Your task to perform on an android device: open app "VLC for Android" (install if not already installed) Image 0: 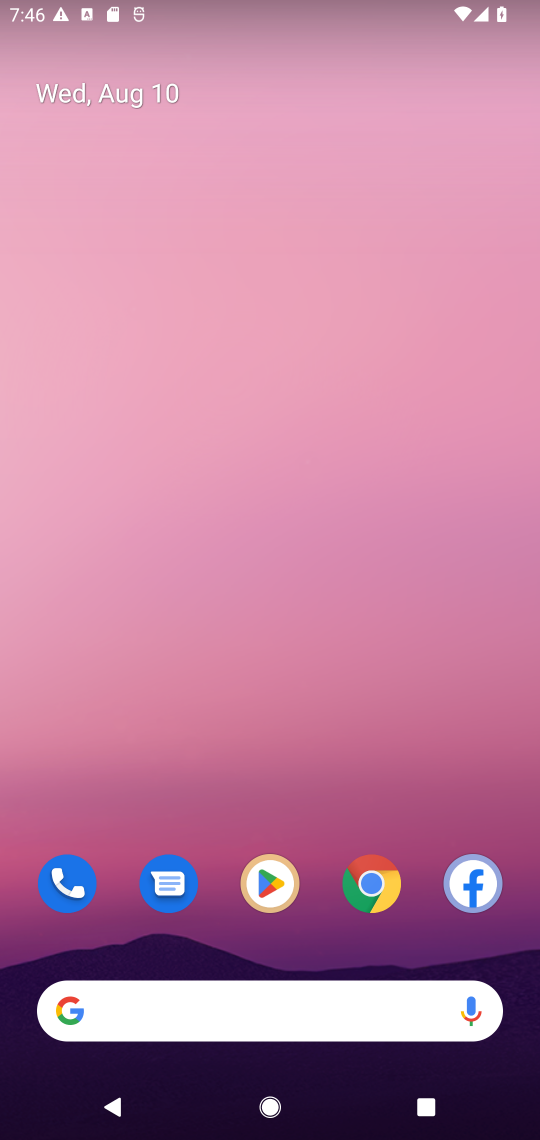
Step 0: drag from (327, 942) to (329, 35)
Your task to perform on an android device: open app "VLC for Android" (install if not already installed) Image 1: 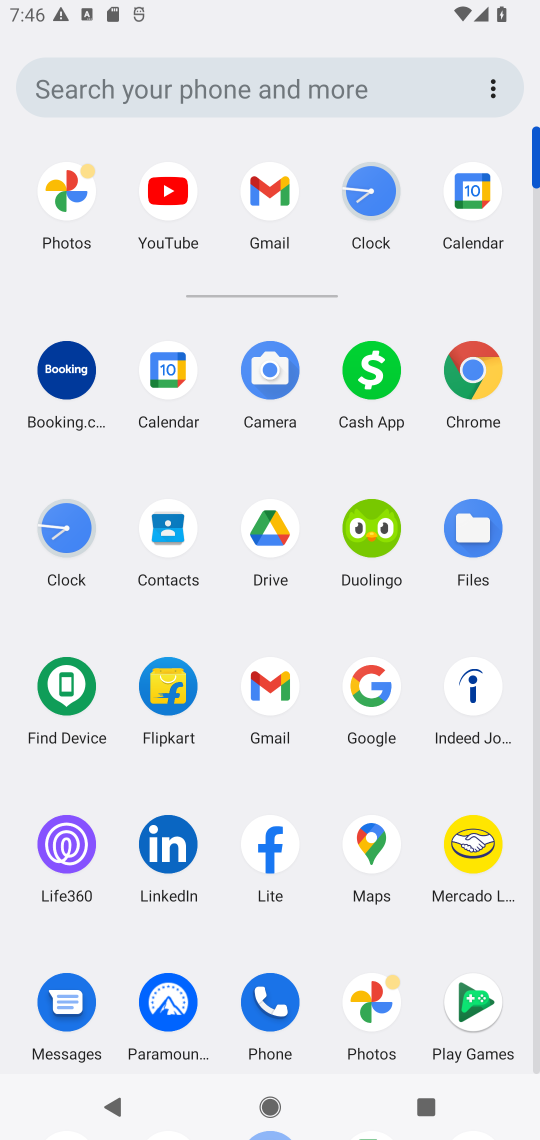
Step 1: drag from (323, 792) to (318, 437)
Your task to perform on an android device: open app "VLC for Android" (install if not already installed) Image 2: 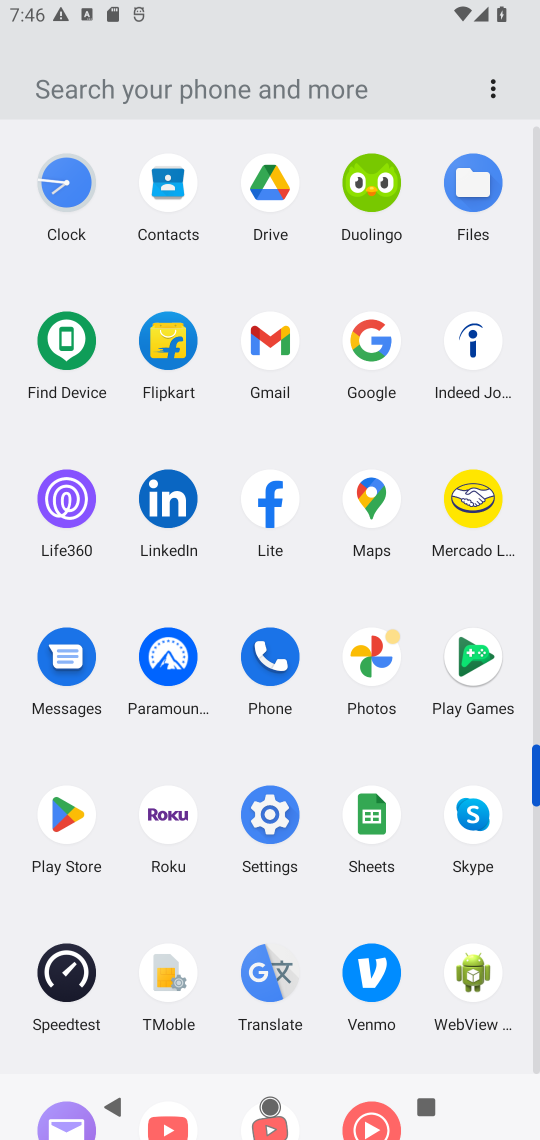
Step 2: drag from (320, 998) to (320, 361)
Your task to perform on an android device: open app "VLC for Android" (install if not already installed) Image 3: 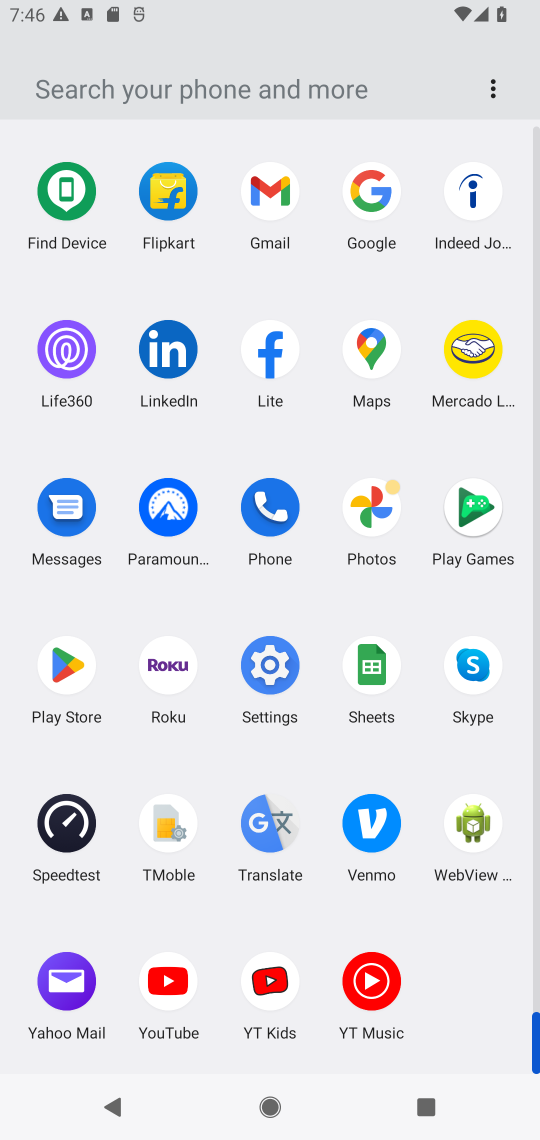
Step 3: click (64, 666)
Your task to perform on an android device: open app "VLC for Android" (install if not already installed) Image 4: 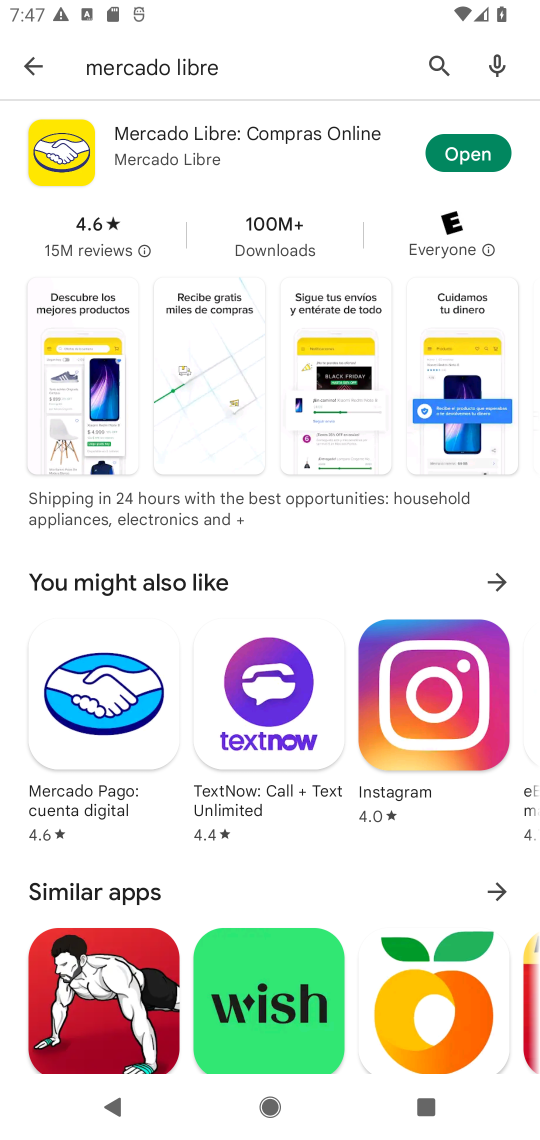
Step 4: click (435, 64)
Your task to perform on an android device: open app "VLC for Android" (install if not already installed) Image 5: 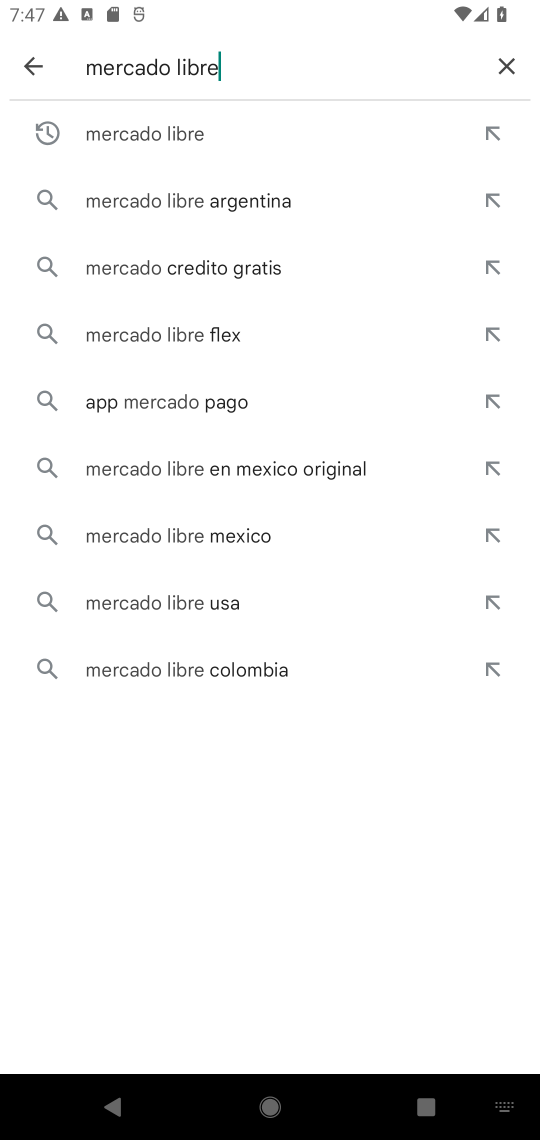
Step 5: click (499, 56)
Your task to perform on an android device: open app "VLC for Android" (install if not already installed) Image 6: 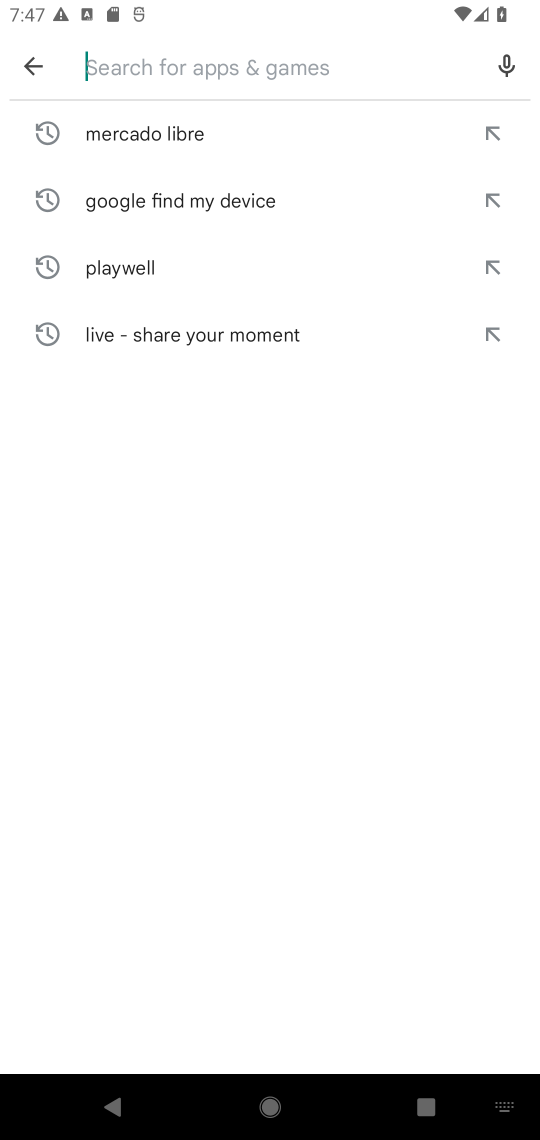
Step 6: type "VLC for Android"
Your task to perform on an android device: open app "VLC for Android" (install if not already installed) Image 7: 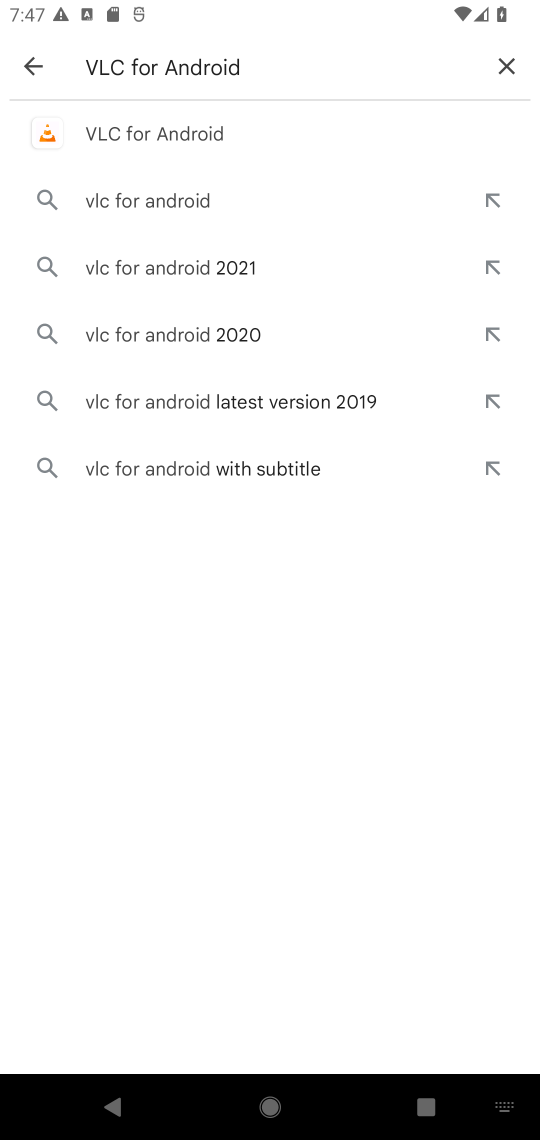
Step 7: click (170, 131)
Your task to perform on an android device: open app "VLC for Android" (install if not already installed) Image 8: 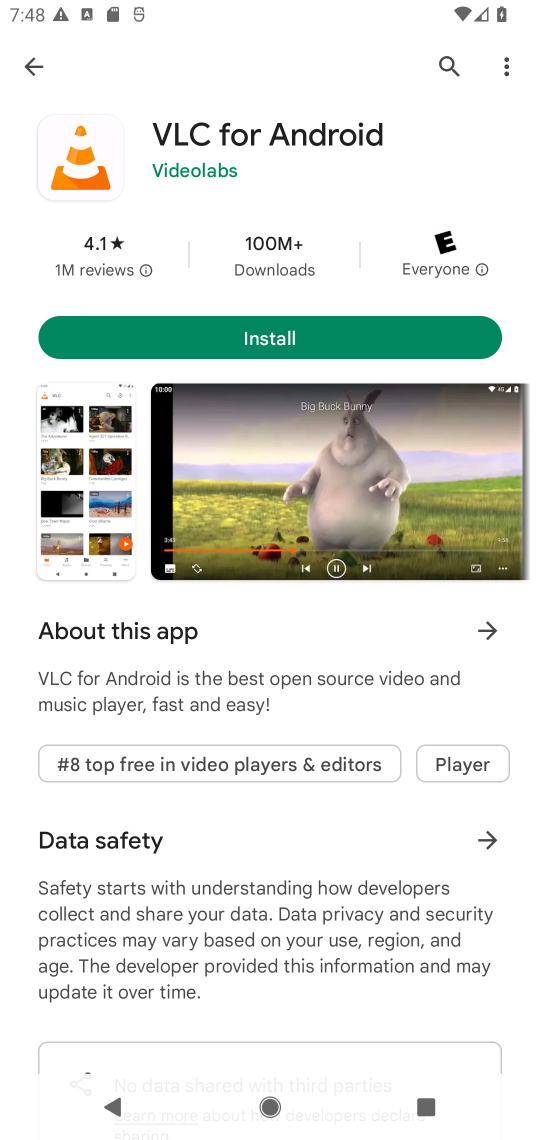
Step 8: click (294, 338)
Your task to perform on an android device: open app "VLC for Android" (install if not already installed) Image 9: 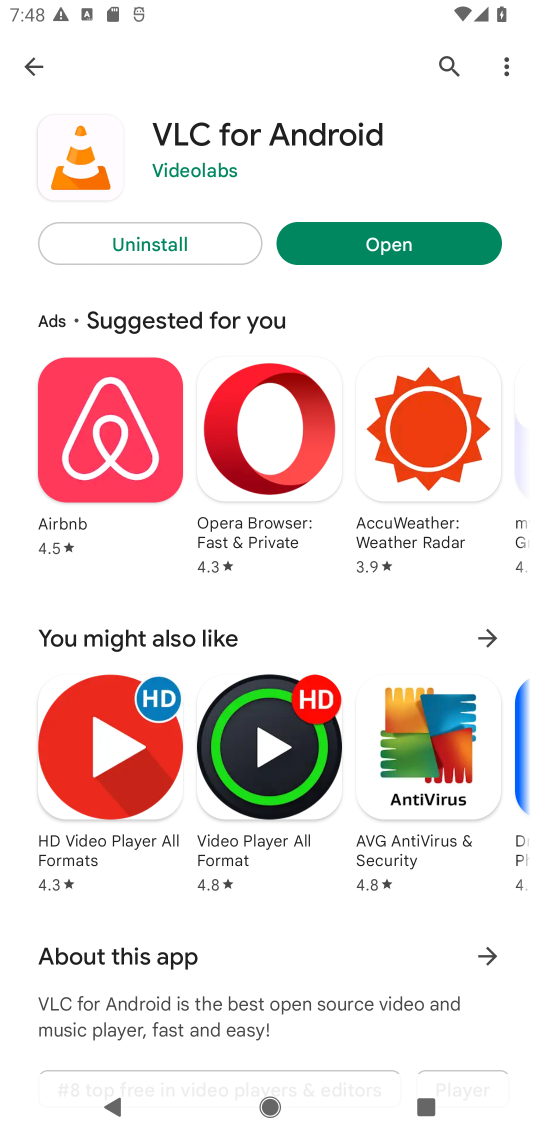
Step 9: click (379, 241)
Your task to perform on an android device: open app "VLC for Android" (install if not already installed) Image 10: 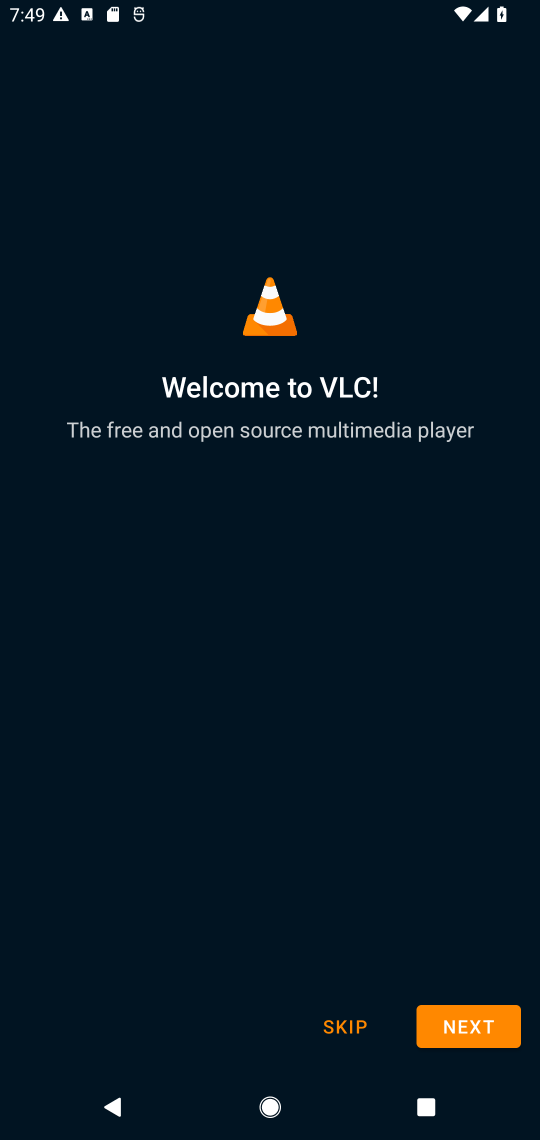
Step 10: task complete